Your task to perform on an android device: open sync settings in chrome Image 0: 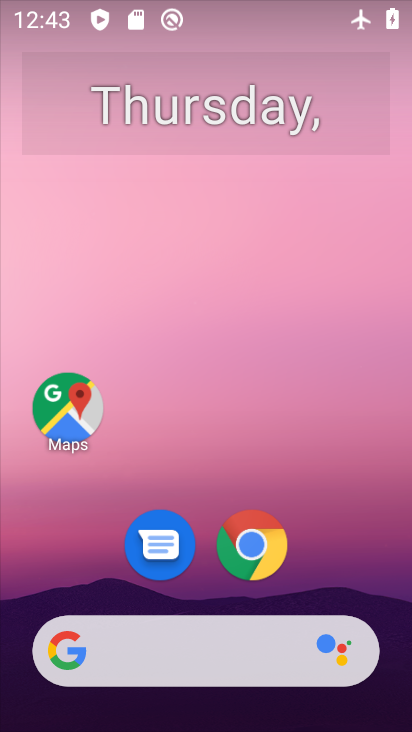
Step 0: click (252, 549)
Your task to perform on an android device: open sync settings in chrome Image 1: 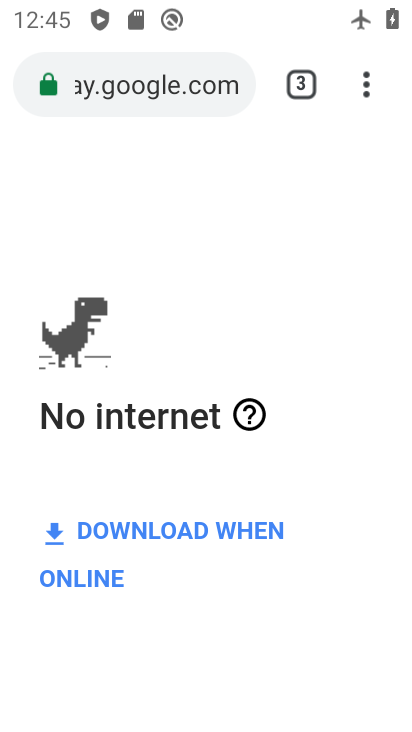
Step 1: click (367, 84)
Your task to perform on an android device: open sync settings in chrome Image 2: 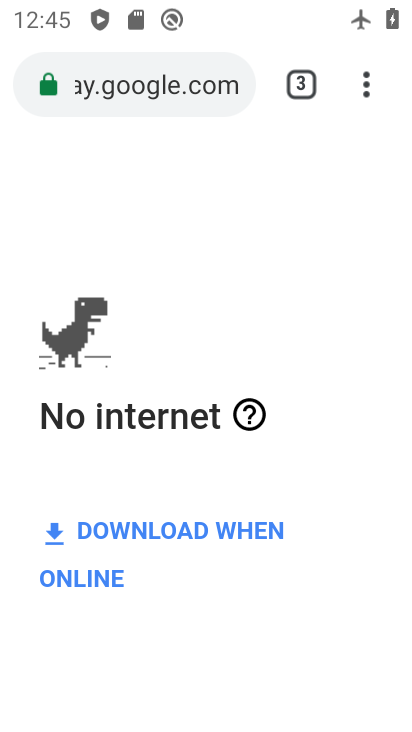
Step 2: click (360, 78)
Your task to perform on an android device: open sync settings in chrome Image 3: 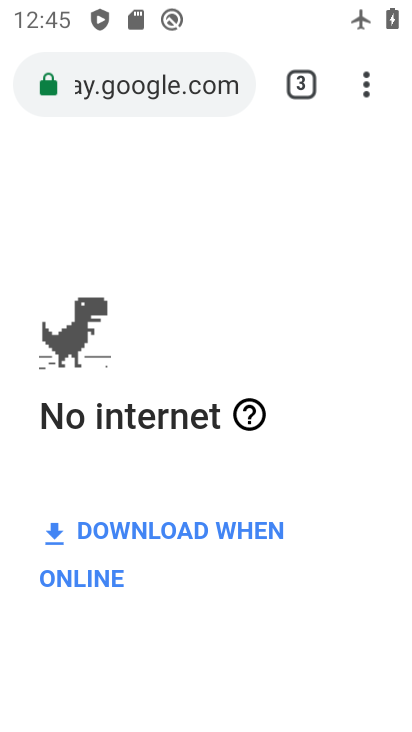
Step 3: click (357, 93)
Your task to perform on an android device: open sync settings in chrome Image 4: 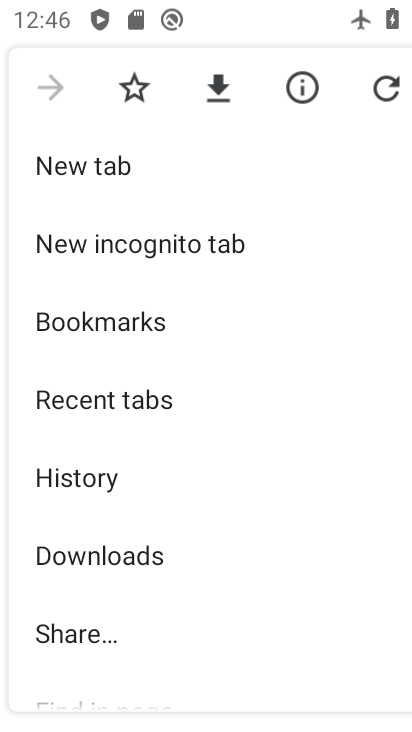
Step 4: drag from (203, 598) to (265, 249)
Your task to perform on an android device: open sync settings in chrome Image 5: 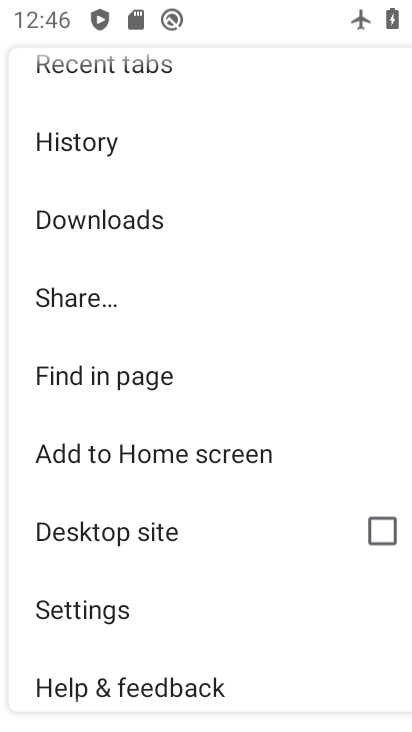
Step 5: click (126, 609)
Your task to perform on an android device: open sync settings in chrome Image 6: 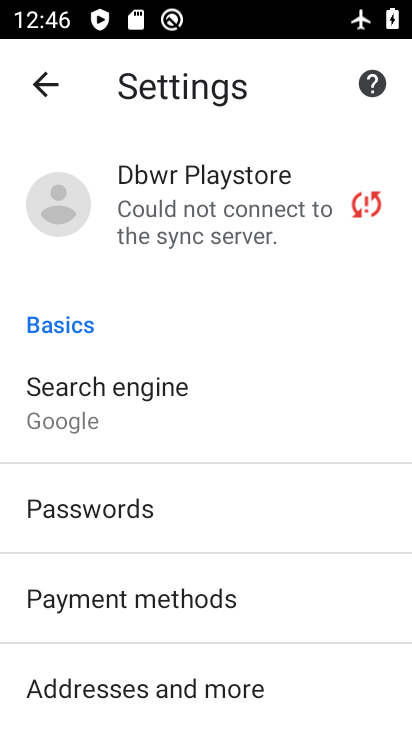
Step 6: click (261, 185)
Your task to perform on an android device: open sync settings in chrome Image 7: 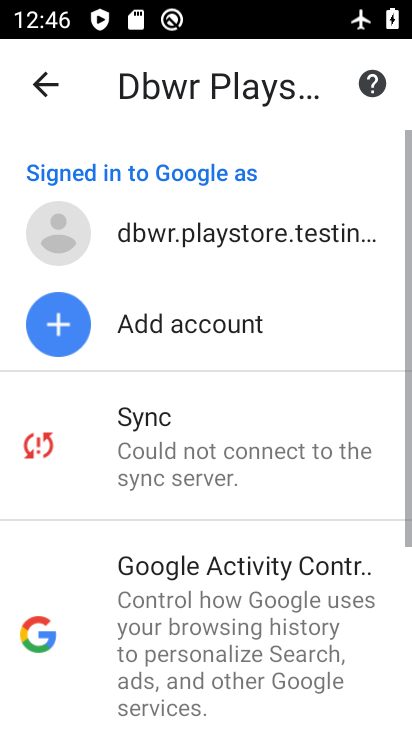
Step 7: task complete